Your task to perform on an android device: Go to sound settings Image 0: 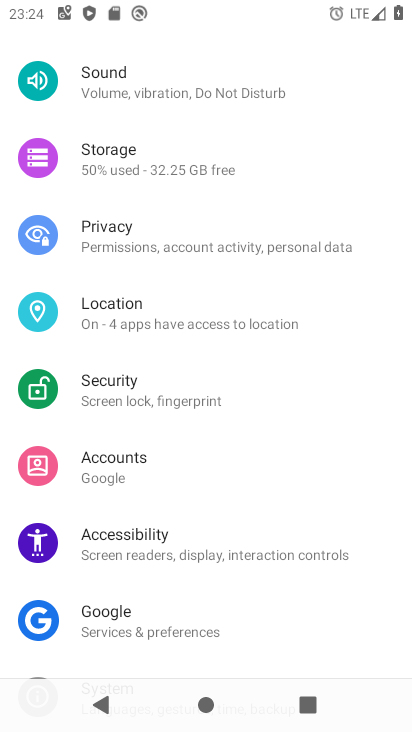
Step 0: drag from (249, 185) to (254, 505)
Your task to perform on an android device: Go to sound settings Image 1: 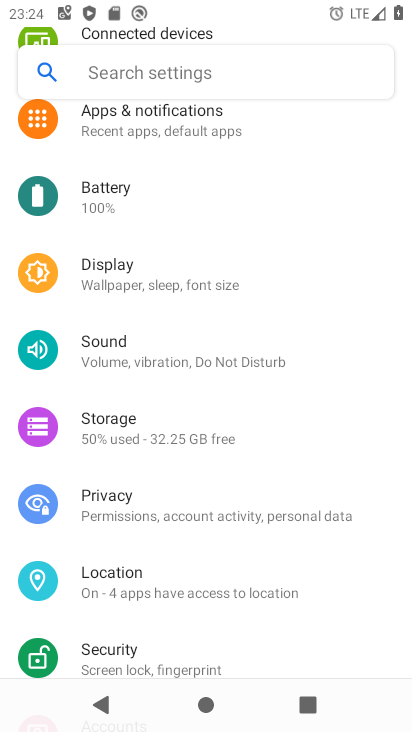
Step 1: click (102, 352)
Your task to perform on an android device: Go to sound settings Image 2: 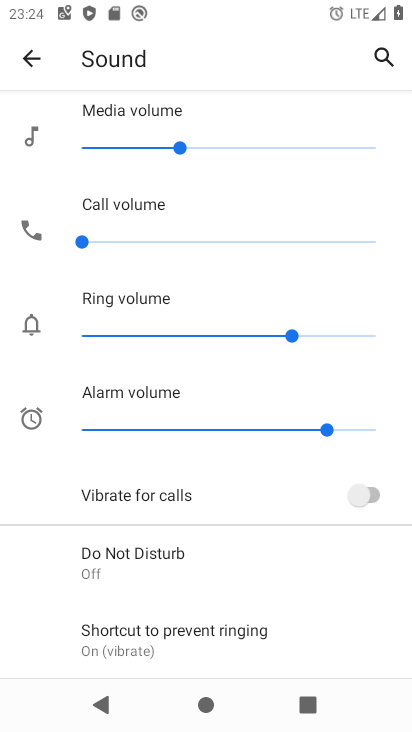
Step 2: drag from (287, 635) to (245, 289)
Your task to perform on an android device: Go to sound settings Image 3: 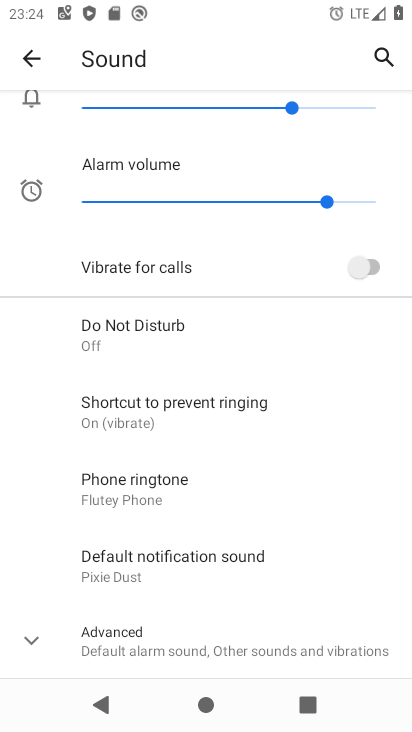
Step 3: click (23, 632)
Your task to perform on an android device: Go to sound settings Image 4: 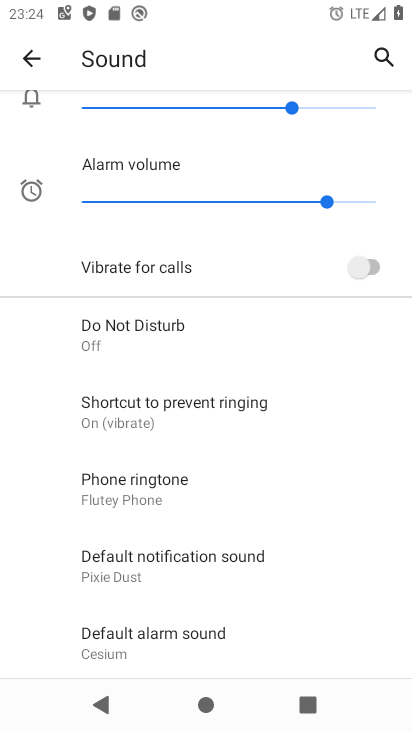
Step 4: task complete